Your task to perform on an android device: Go to Wikipedia Image 0: 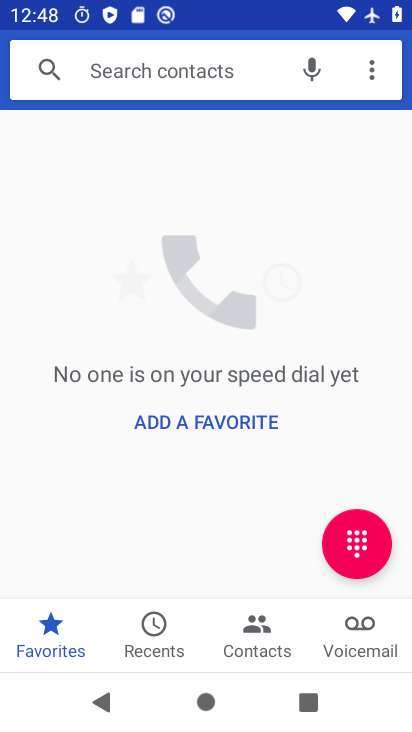
Step 0: press home button
Your task to perform on an android device: Go to Wikipedia Image 1: 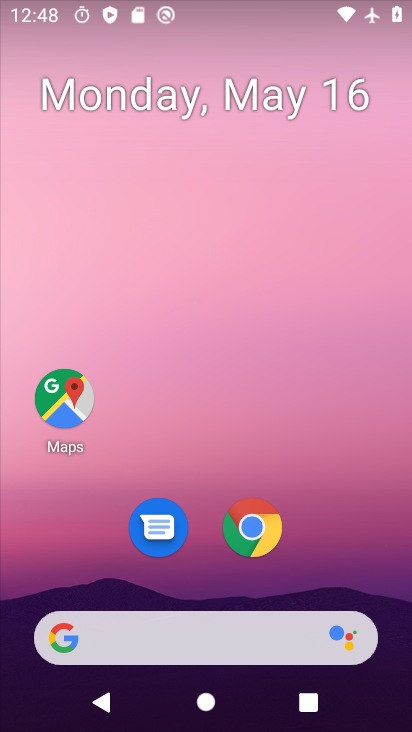
Step 1: click (250, 523)
Your task to perform on an android device: Go to Wikipedia Image 2: 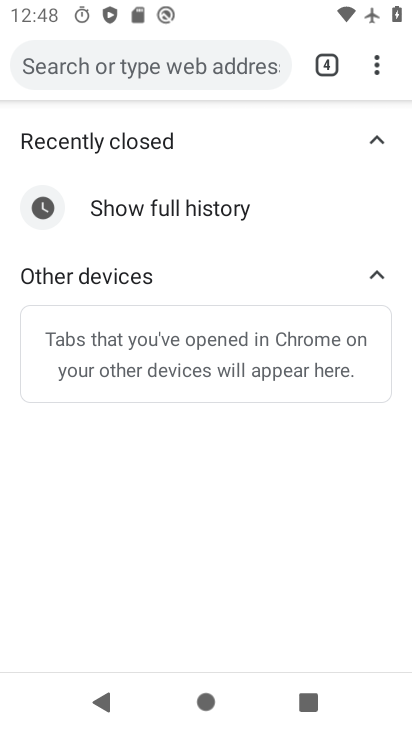
Step 2: drag from (378, 69) to (220, 124)
Your task to perform on an android device: Go to Wikipedia Image 3: 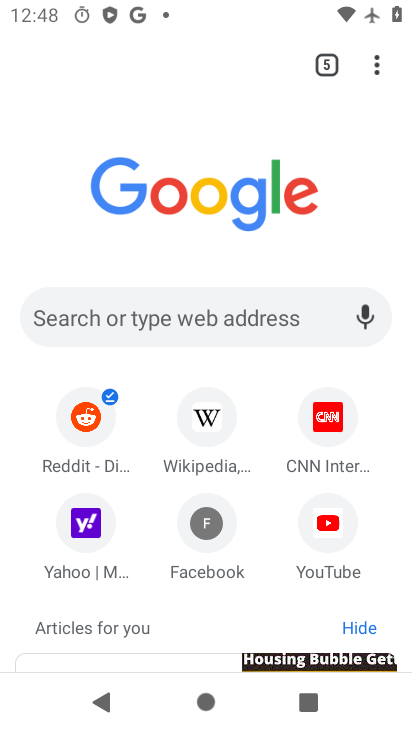
Step 3: click (217, 423)
Your task to perform on an android device: Go to Wikipedia Image 4: 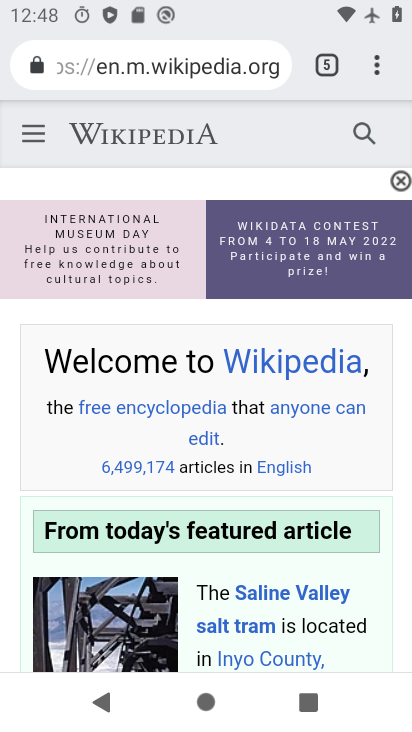
Step 4: task complete